Your task to perform on an android device: check storage Image 0: 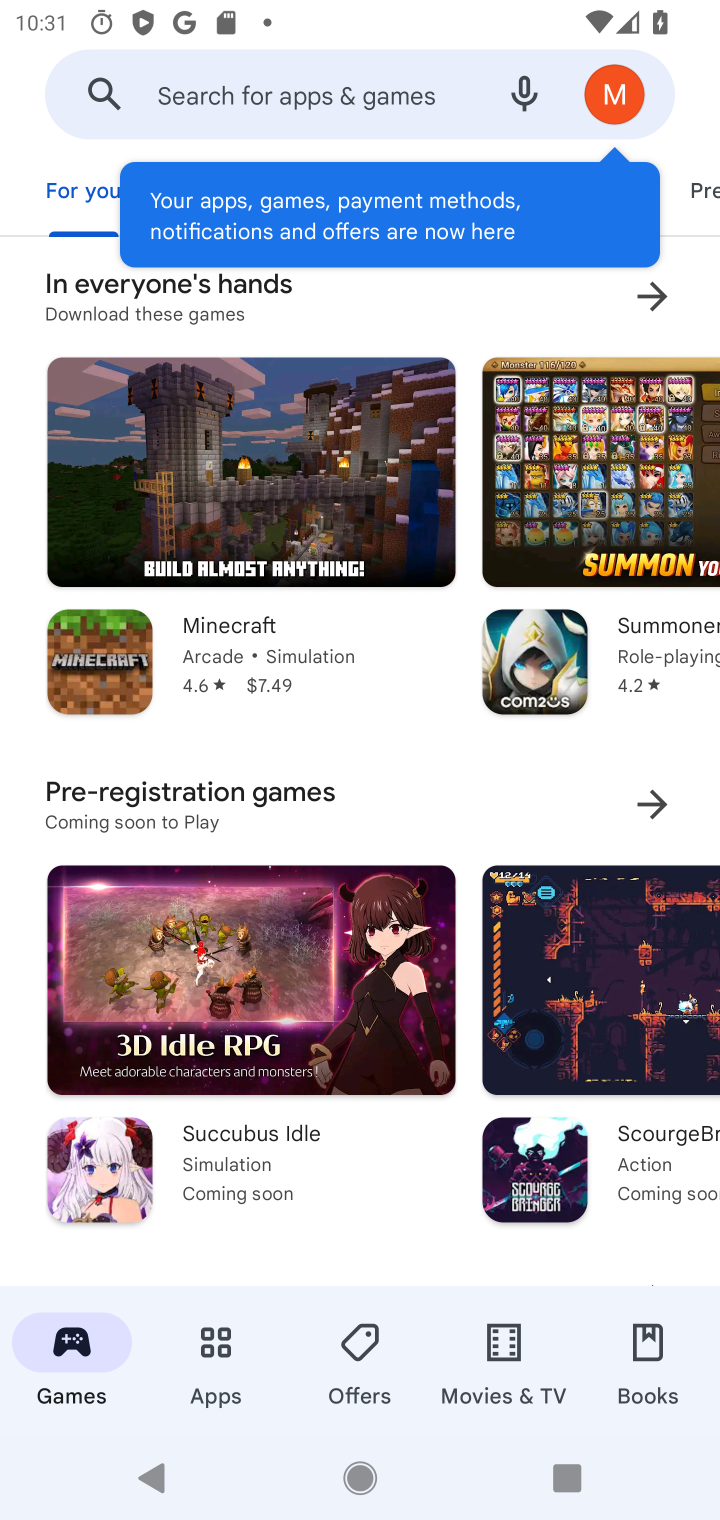
Step 0: press home button
Your task to perform on an android device: check storage Image 1: 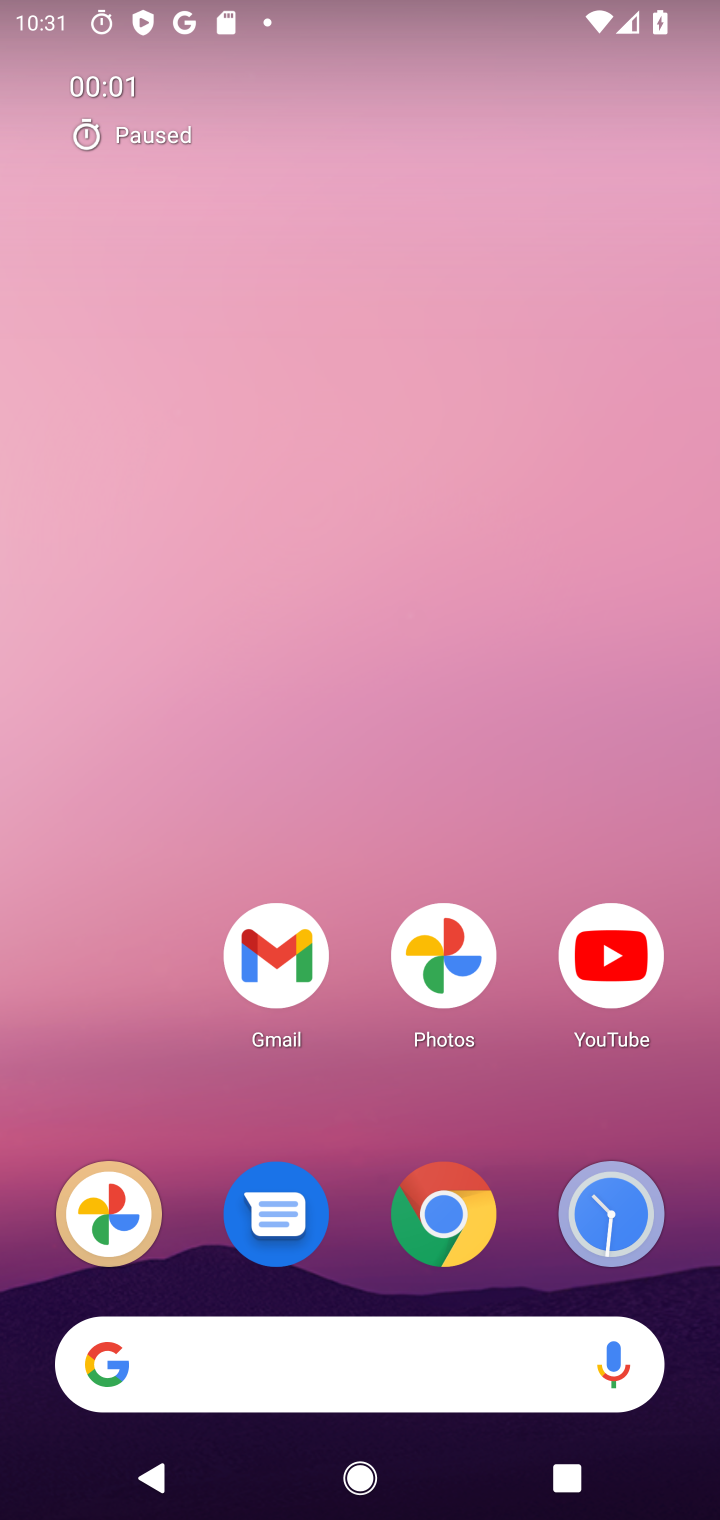
Step 1: drag from (25, 1483) to (685, 459)
Your task to perform on an android device: check storage Image 2: 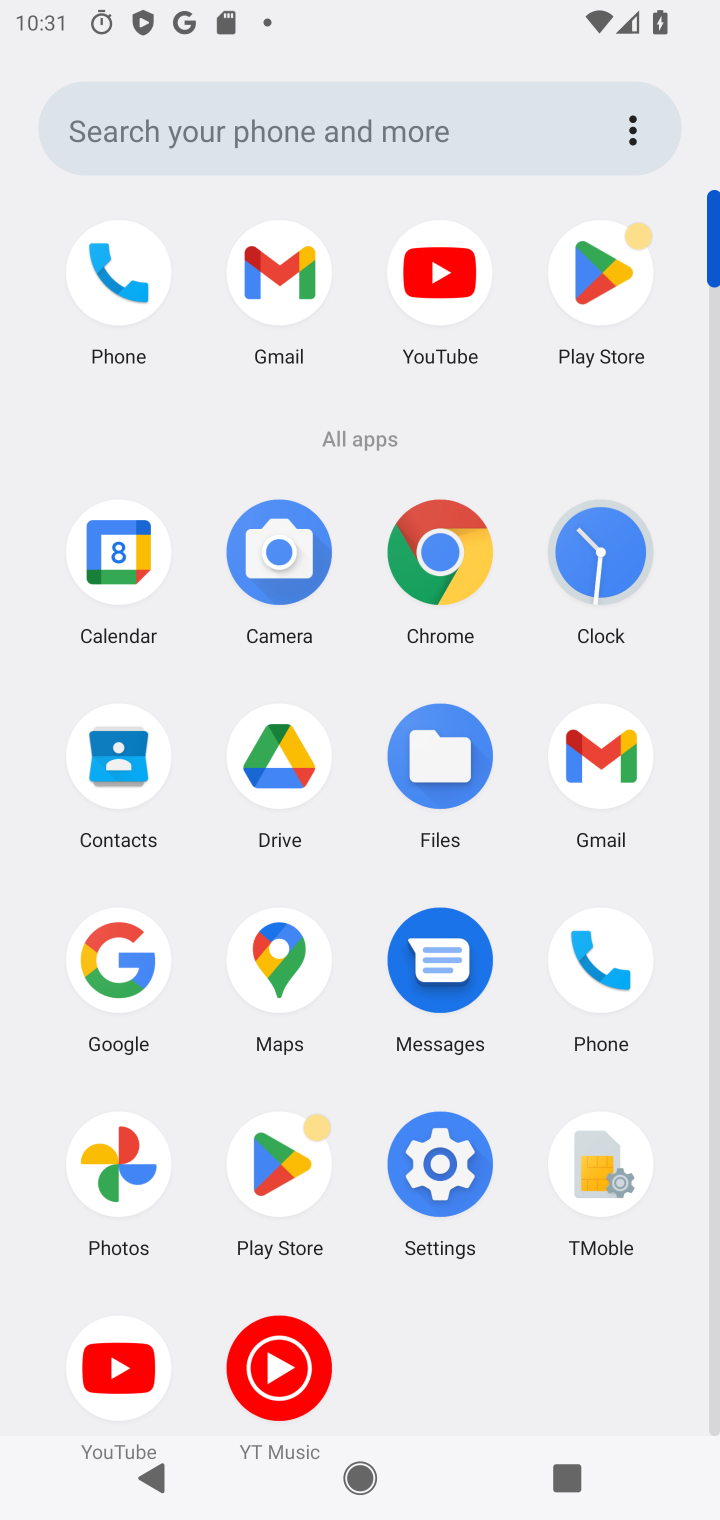
Step 2: click (430, 1196)
Your task to perform on an android device: check storage Image 3: 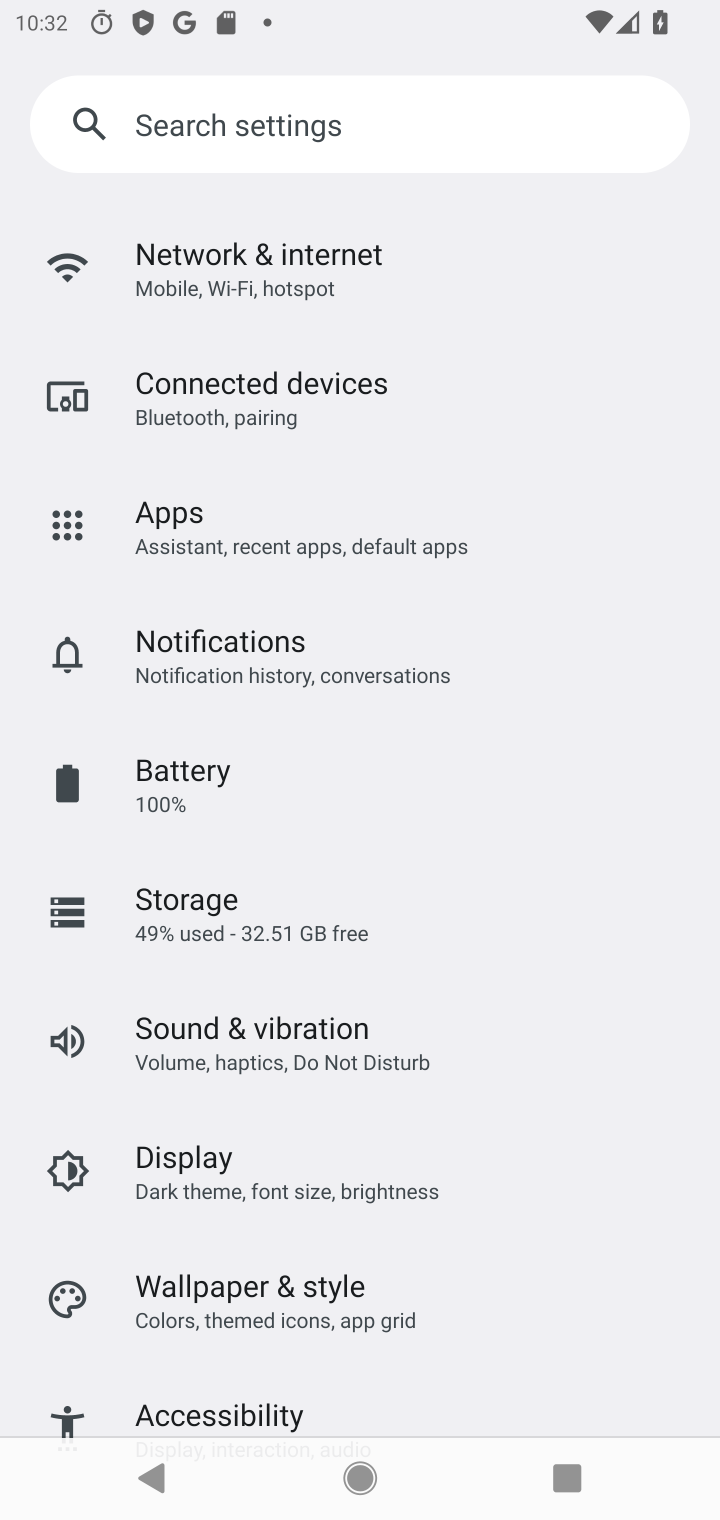
Step 3: click (166, 916)
Your task to perform on an android device: check storage Image 4: 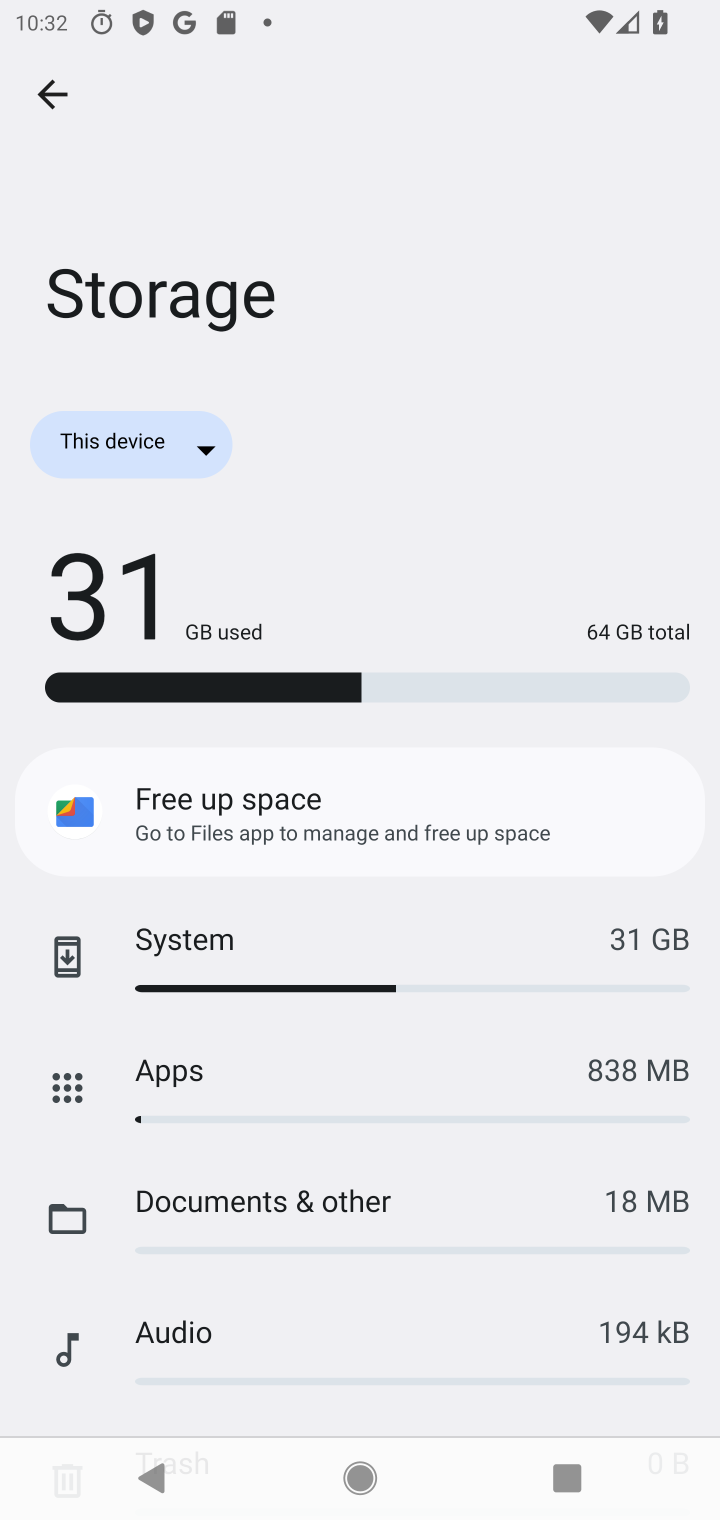
Step 4: task complete